Your task to perform on an android device: Search for a custom made wallet Image 0: 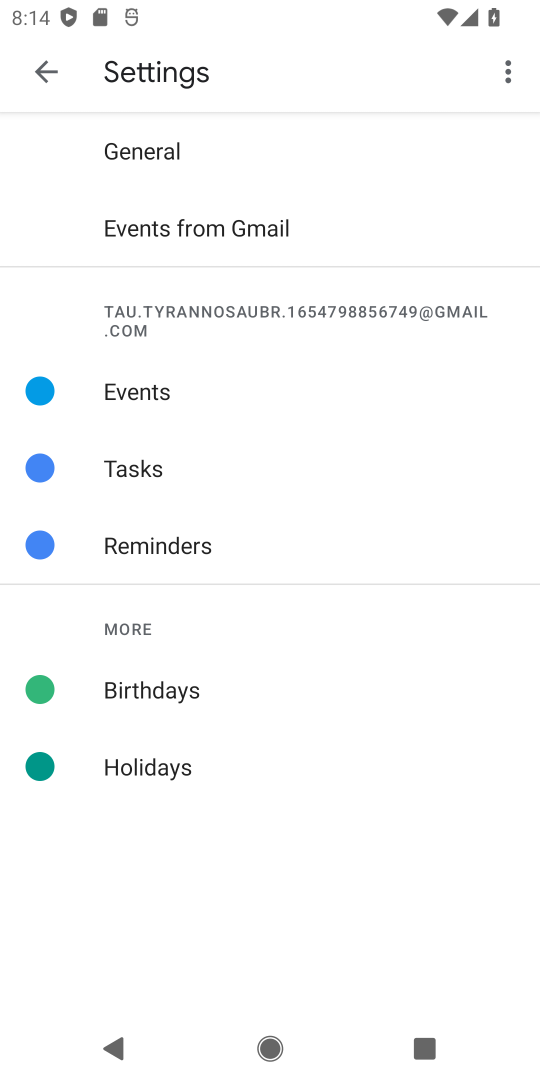
Step 0: press home button
Your task to perform on an android device: Search for a custom made wallet Image 1: 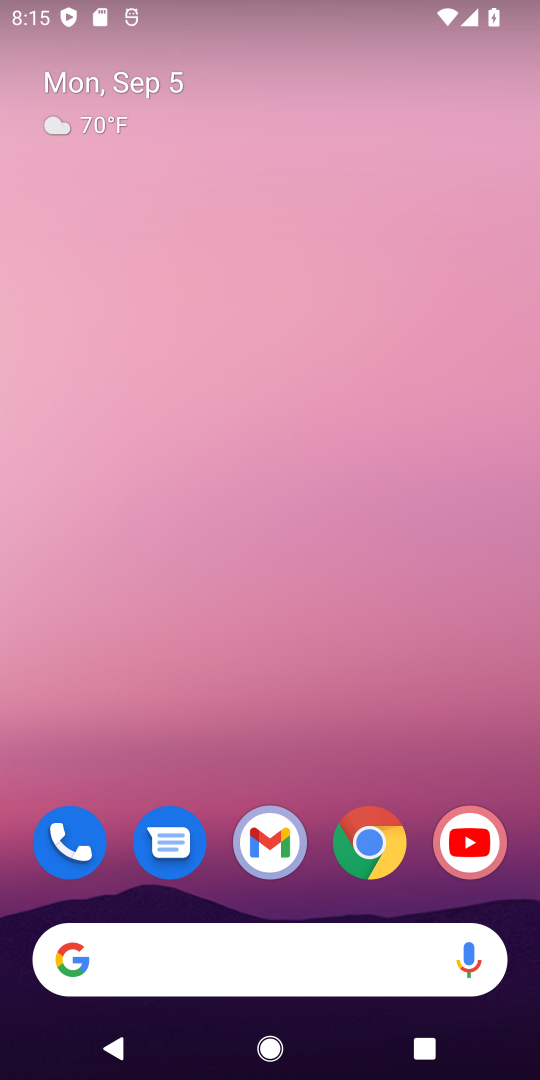
Step 1: click (372, 845)
Your task to perform on an android device: Search for a custom made wallet Image 2: 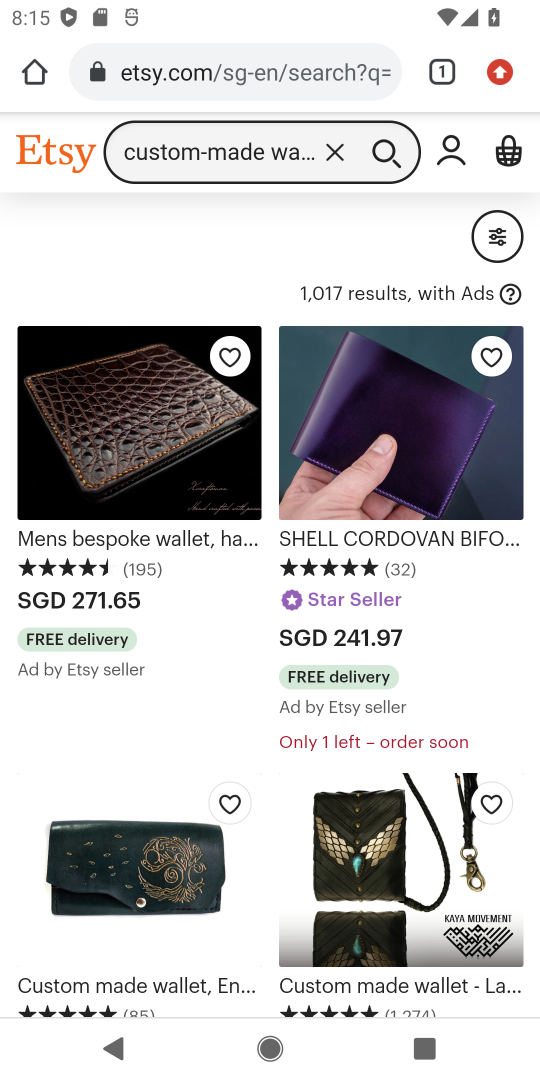
Step 2: click (324, 77)
Your task to perform on an android device: Search for a custom made wallet Image 3: 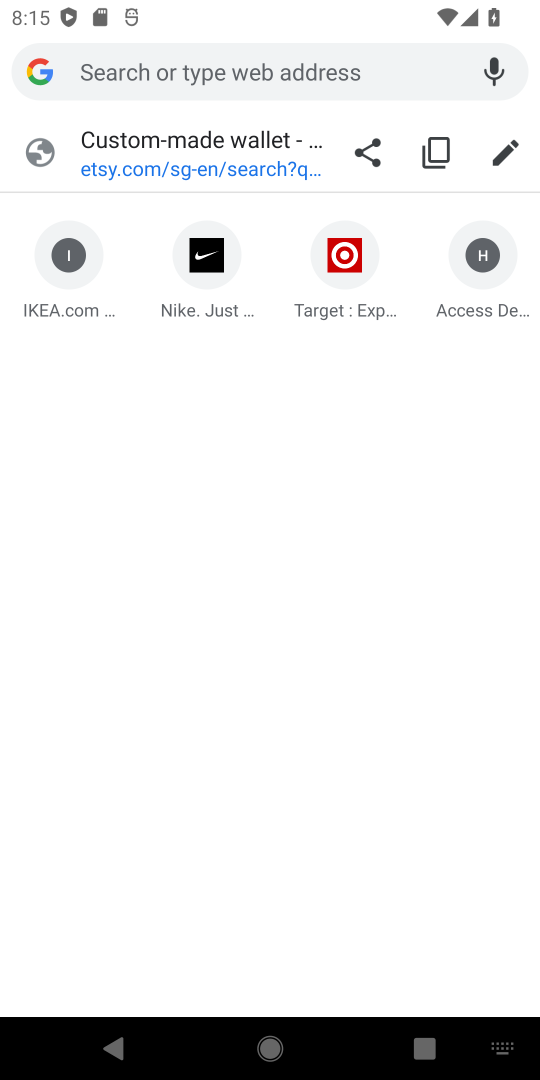
Step 3: click (164, 72)
Your task to perform on an android device: Search for a custom made wallet Image 4: 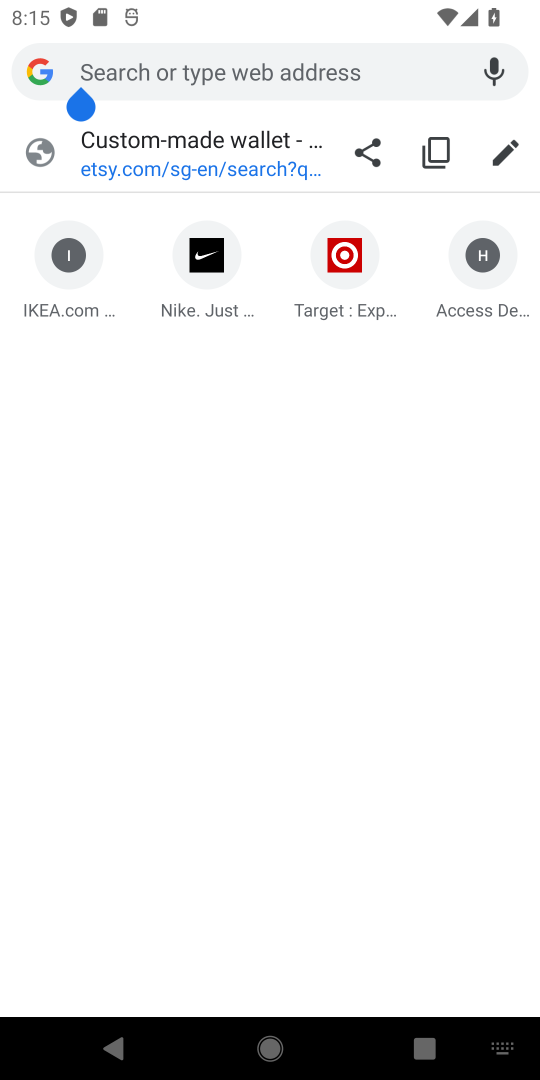
Step 4: type "custom made wallet"
Your task to perform on an android device: Search for a custom made wallet Image 5: 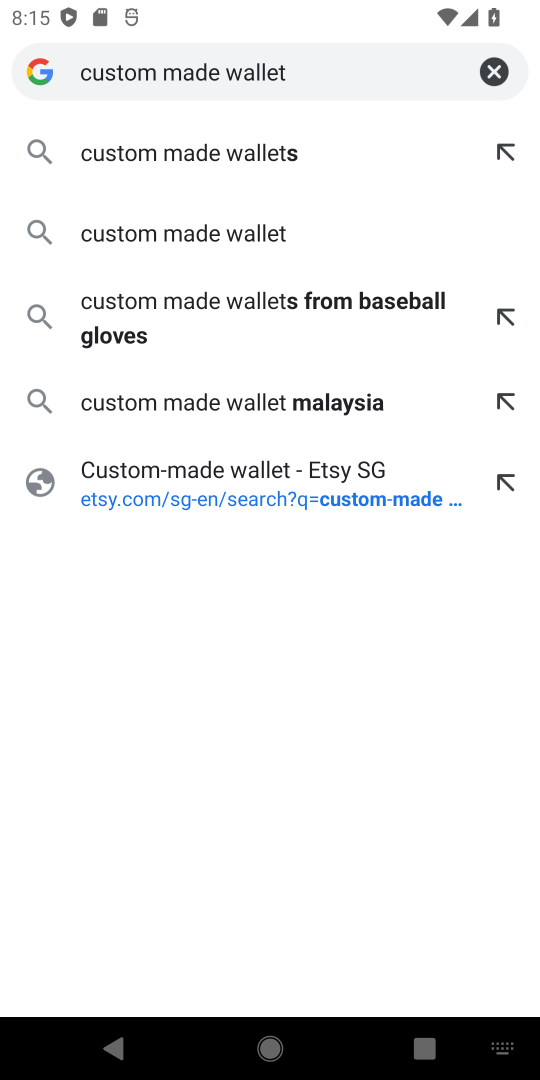
Step 5: click (226, 153)
Your task to perform on an android device: Search for a custom made wallet Image 6: 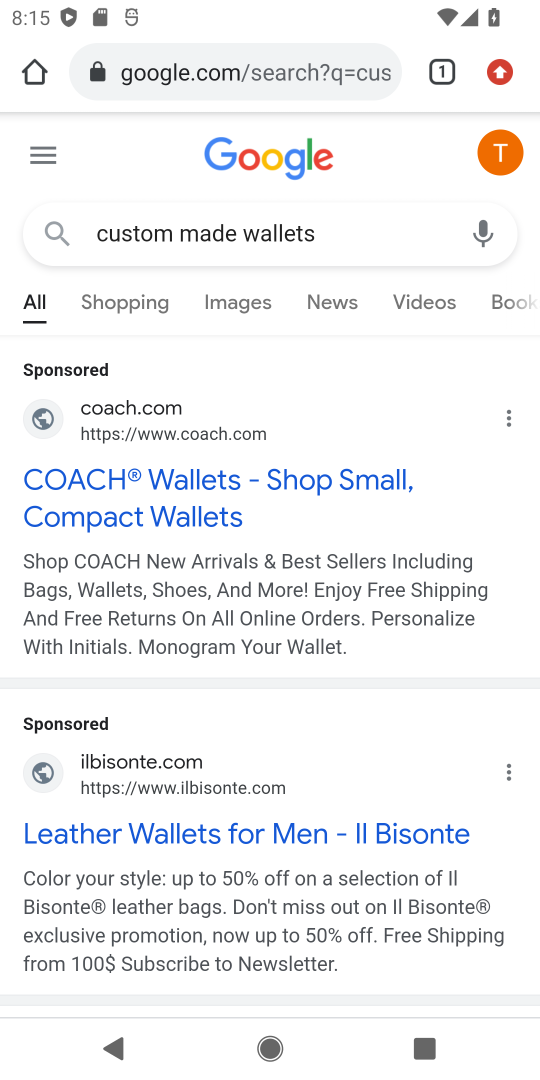
Step 6: drag from (362, 814) to (391, 632)
Your task to perform on an android device: Search for a custom made wallet Image 7: 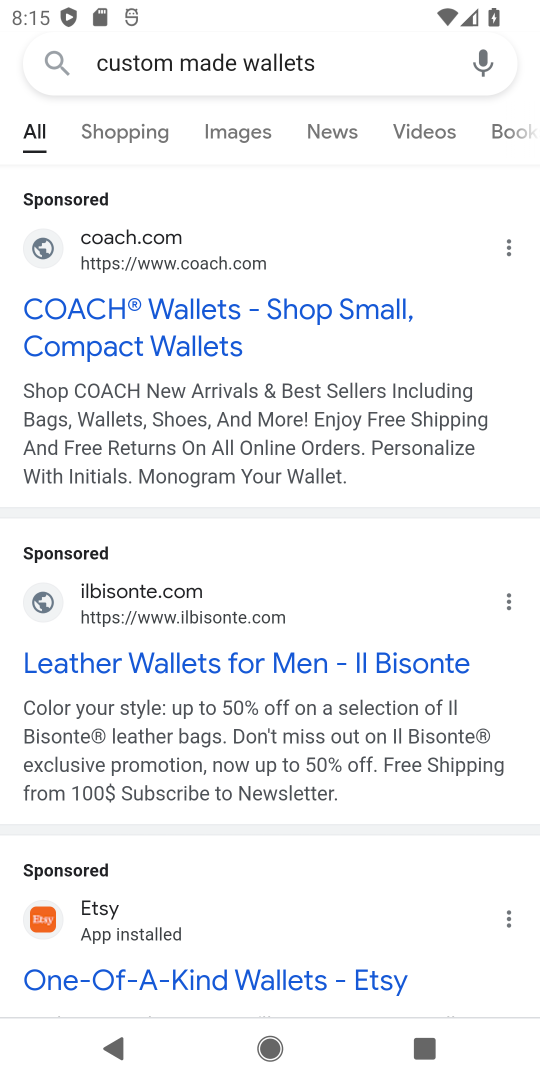
Step 7: drag from (262, 927) to (343, 775)
Your task to perform on an android device: Search for a custom made wallet Image 8: 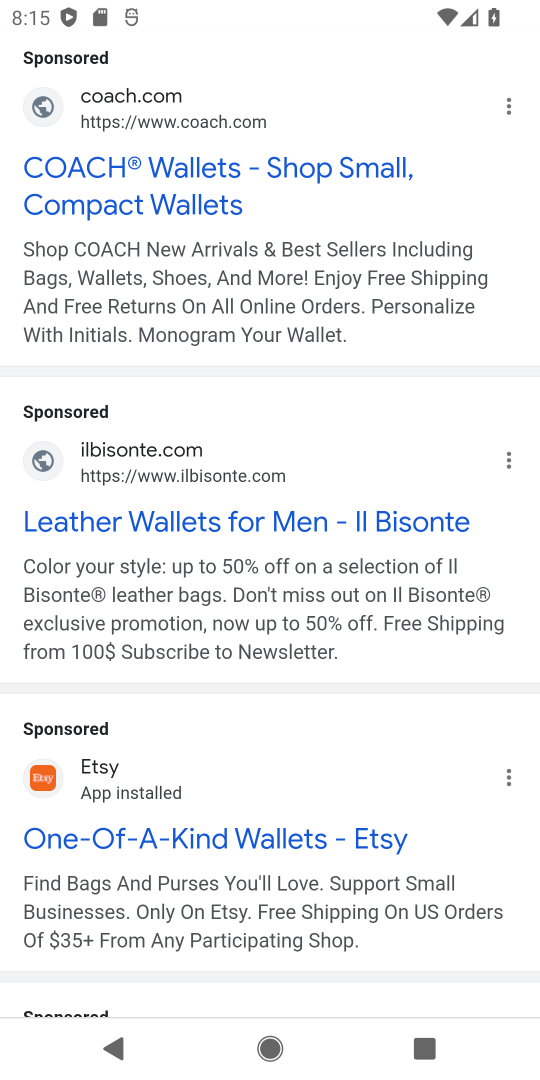
Step 8: drag from (239, 976) to (305, 789)
Your task to perform on an android device: Search for a custom made wallet Image 9: 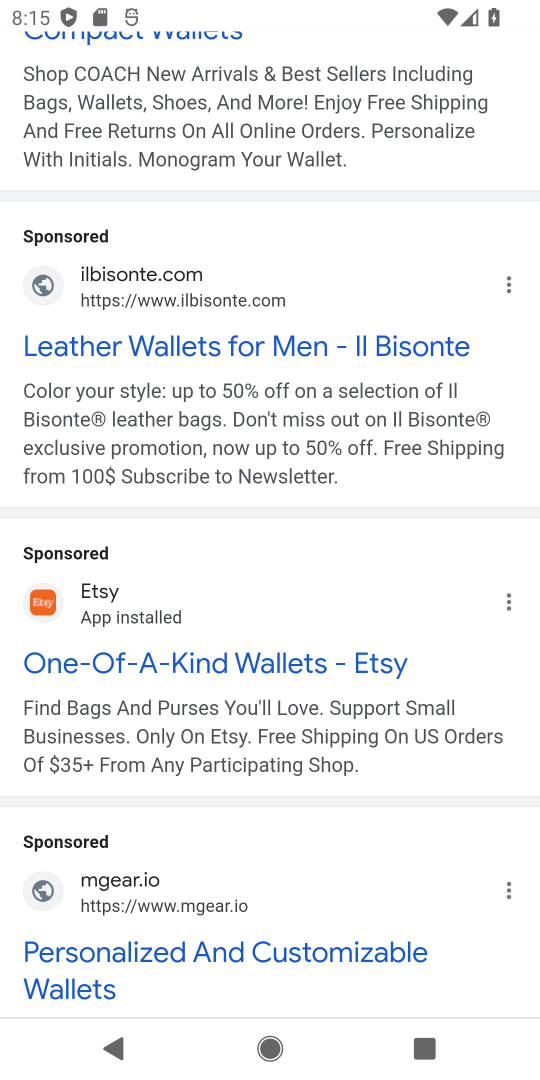
Step 9: drag from (285, 905) to (337, 787)
Your task to perform on an android device: Search for a custom made wallet Image 10: 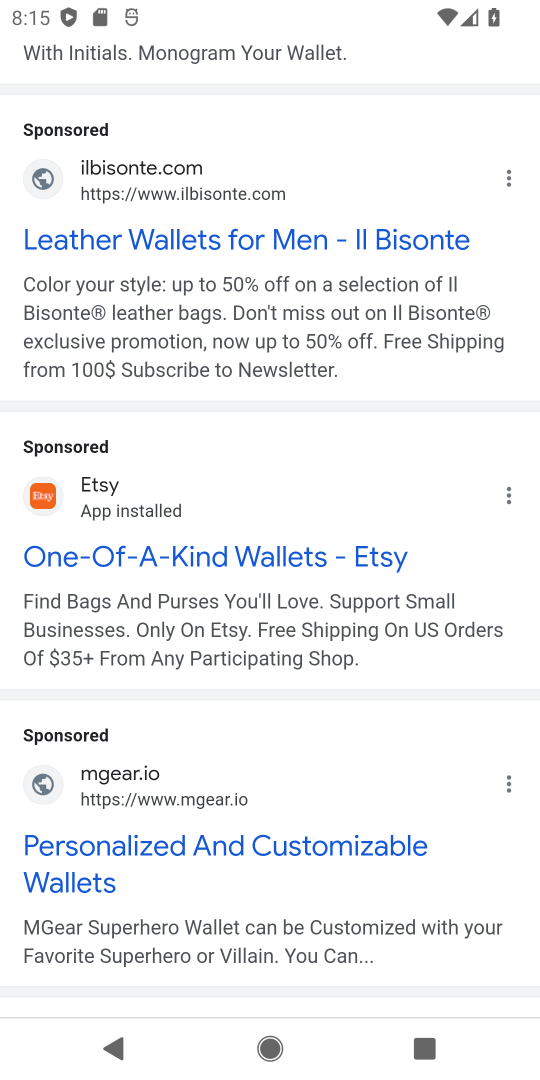
Step 10: drag from (233, 928) to (323, 686)
Your task to perform on an android device: Search for a custom made wallet Image 11: 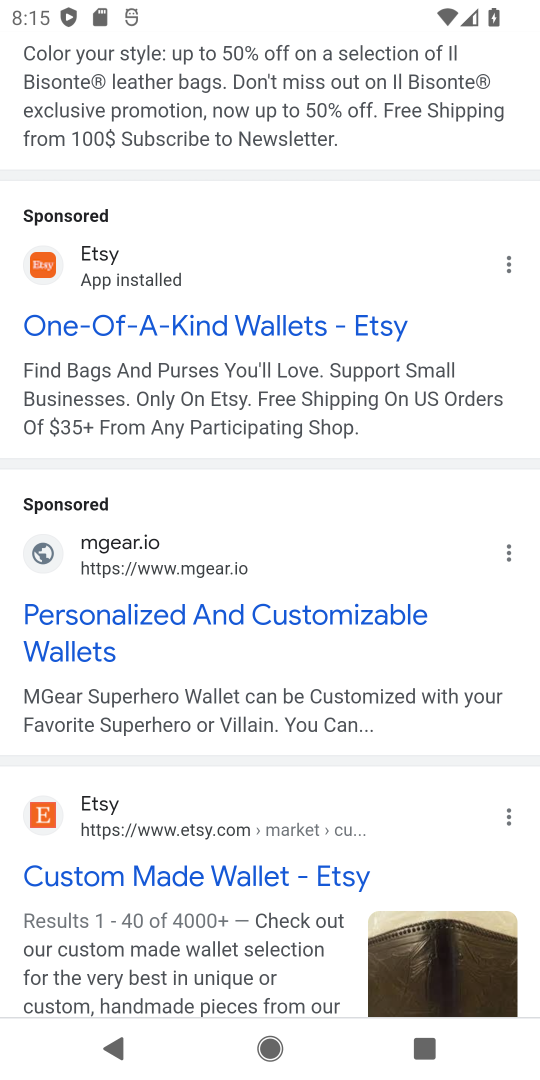
Step 11: click (205, 876)
Your task to perform on an android device: Search for a custom made wallet Image 12: 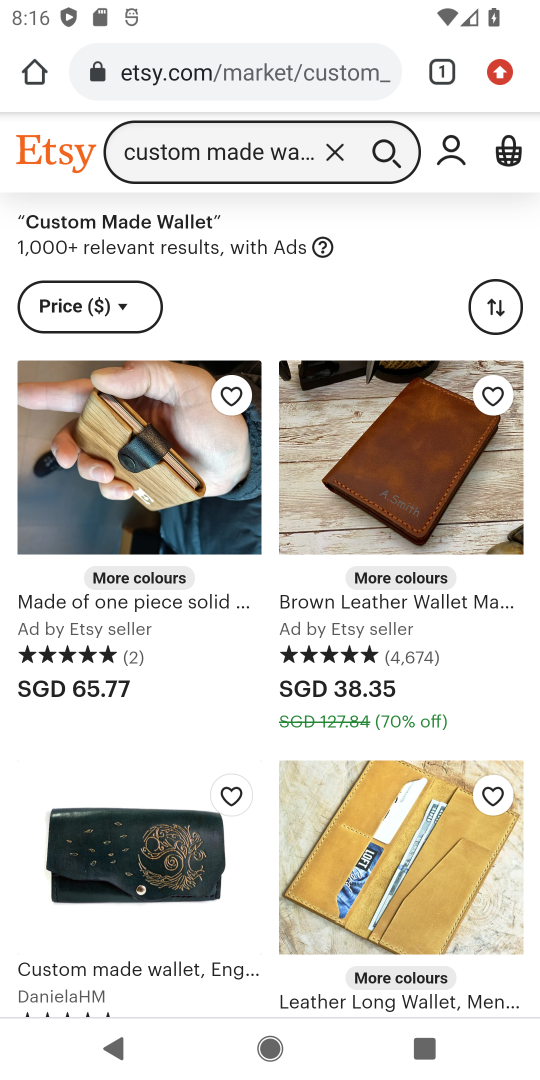
Step 12: task complete